Your task to perform on an android device: Search for Italian restaurants on Maps Image 0: 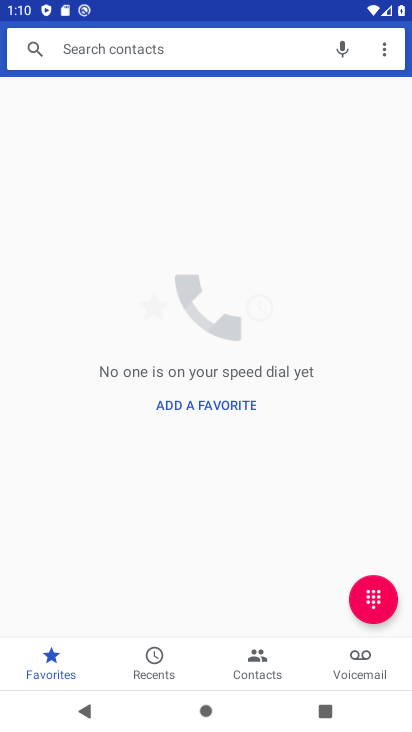
Step 0: drag from (187, 611) to (250, 187)
Your task to perform on an android device: Search for Italian restaurants on Maps Image 1: 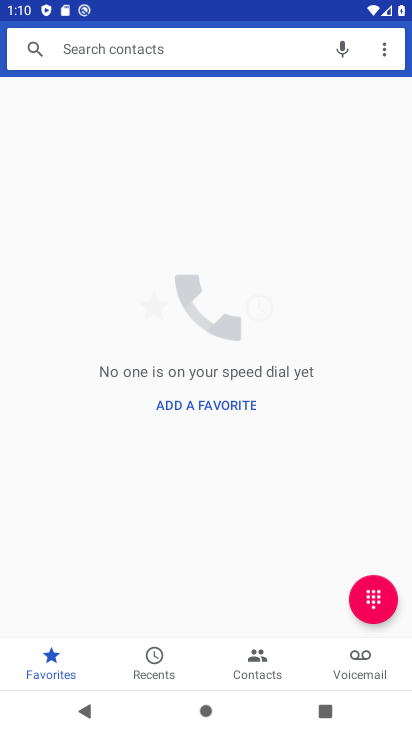
Step 1: drag from (218, 535) to (230, 181)
Your task to perform on an android device: Search for Italian restaurants on Maps Image 2: 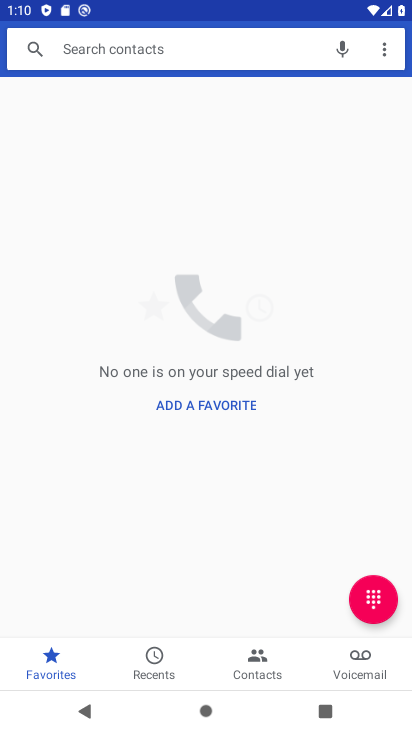
Step 2: press home button
Your task to perform on an android device: Search for Italian restaurants on Maps Image 3: 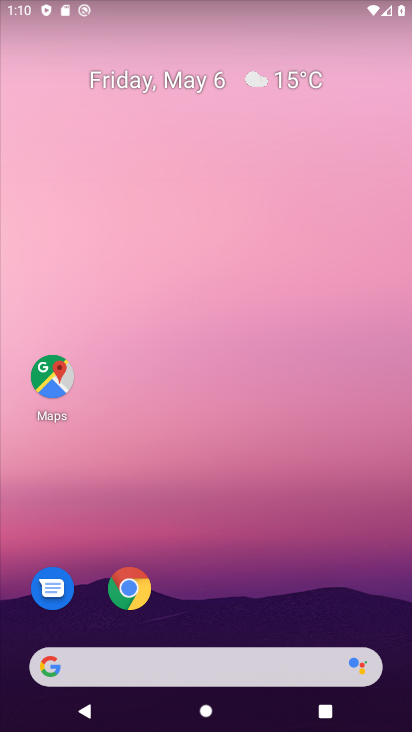
Step 3: drag from (251, 506) to (328, 131)
Your task to perform on an android device: Search for Italian restaurants on Maps Image 4: 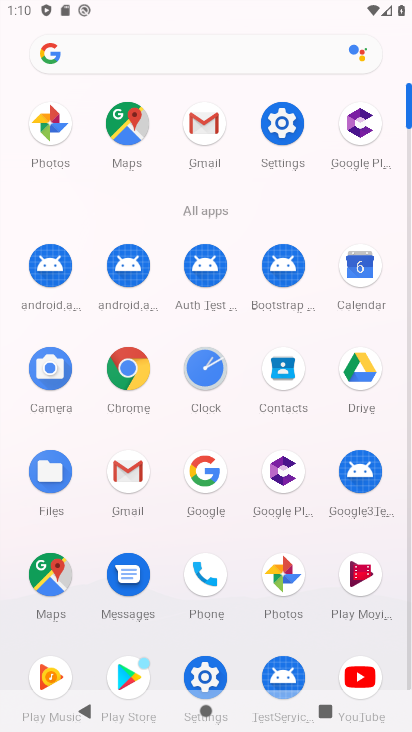
Step 4: drag from (222, 632) to (250, 323)
Your task to perform on an android device: Search for Italian restaurants on Maps Image 5: 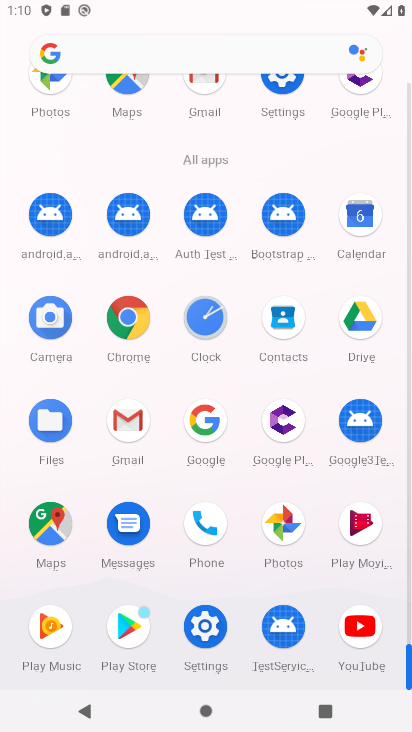
Step 5: click (52, 512)
Your task to perform on an android device: Search for Italian restaurants on Maps Image 6: 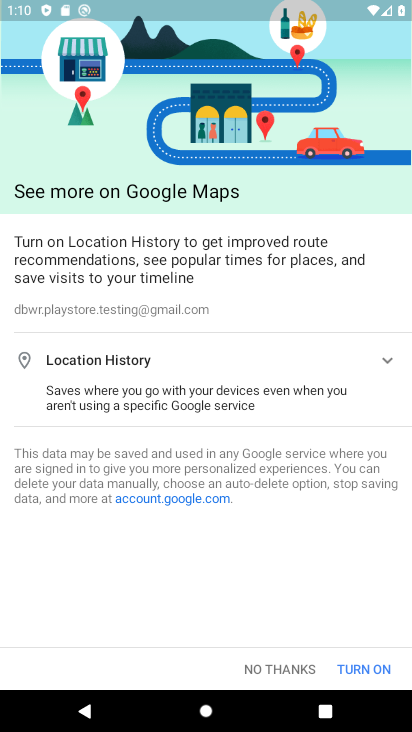
Step 6: click (358, 667)
Your task to perform on an android device: Search for Italian restaurants on Maps Image 7: 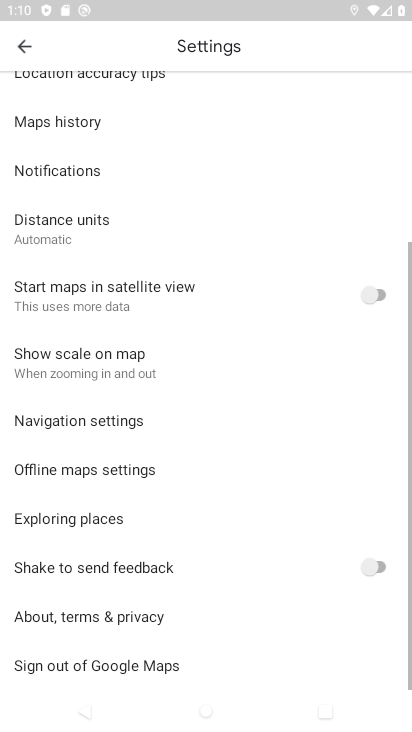
Step 7: drag from (222, 230) to (262, 638)
Your task to perform on an android device: Search for Italian restaurants on Maps Image 8: 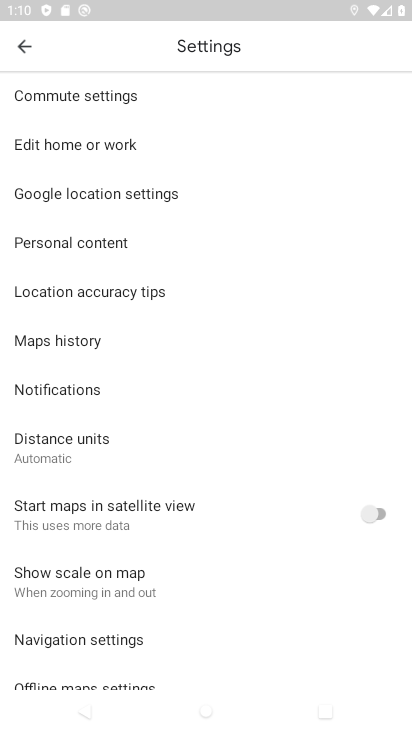
Step 8: click (25, 42)
Your task to perform on an android device: Search for Italian restaurants on Maps Image 9: 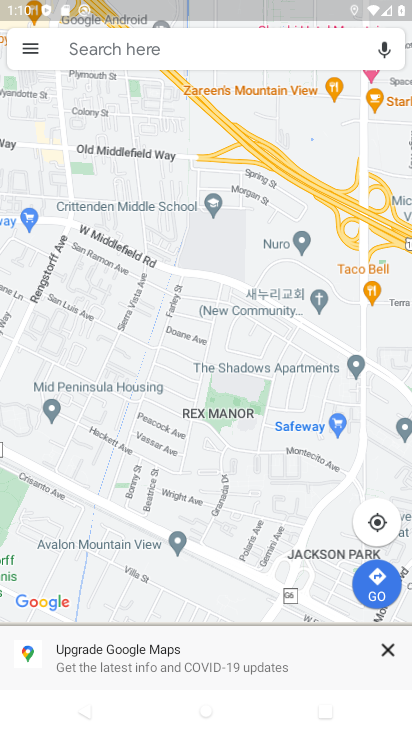
Step 9: drag from (200, 68) to (275, 420)
Your task to perform on an android device: Search for Italian restaurants on Maps Image 10: 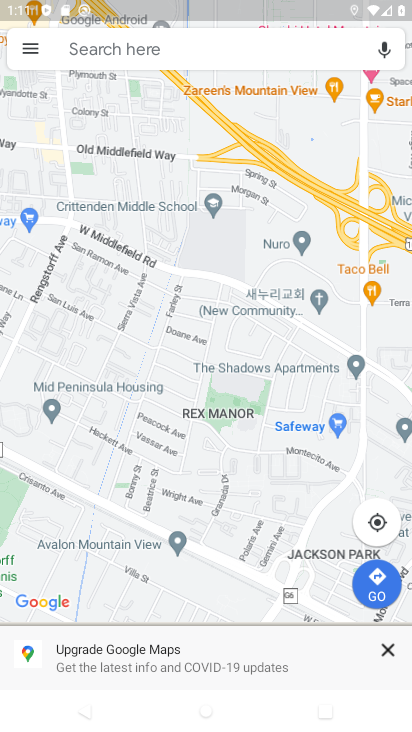
Step 10: click (180, 144)
Your task to perform on an android device: Search for Italian restaurants on Maps Image 11: 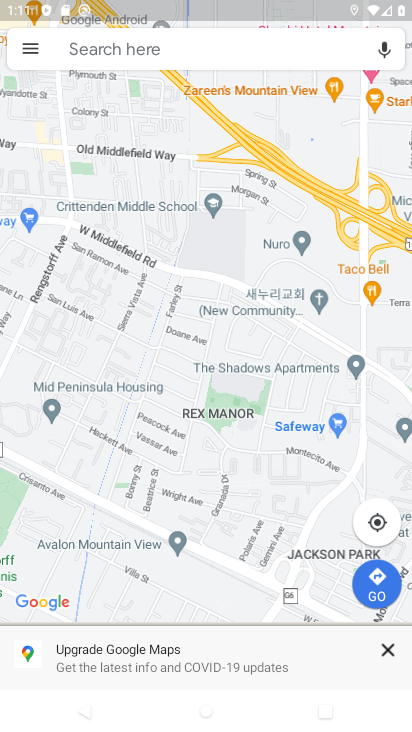
Step 11: click (201, 48)
Your task to perform on an android device: Search for Italian restaurants on Maps Image 12: 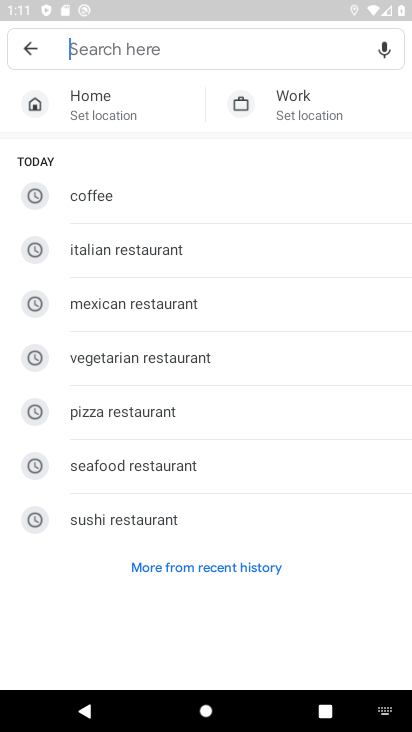
Step 12: click (140, 246)
Your task to perform on an android device: Search for Italian restaurants on Maps Image 13: 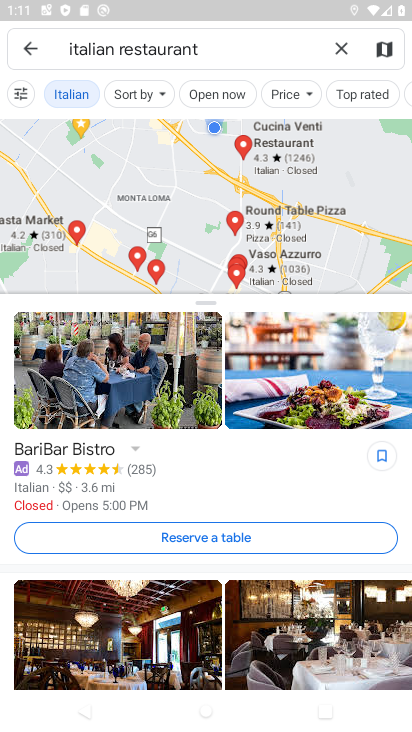
Step 13: task complete